Your task to perform on an android device: Go to notification settings Image 0: 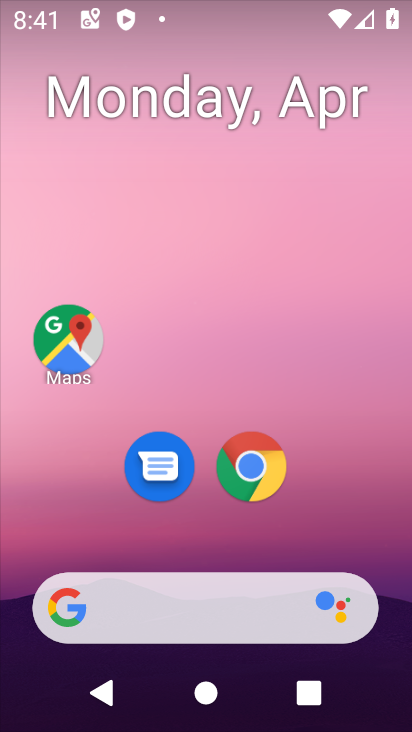
Step 0: drag from (214, 529) to (223, 170)
Your task to perform on an android device: Go to notification settings Image 1: 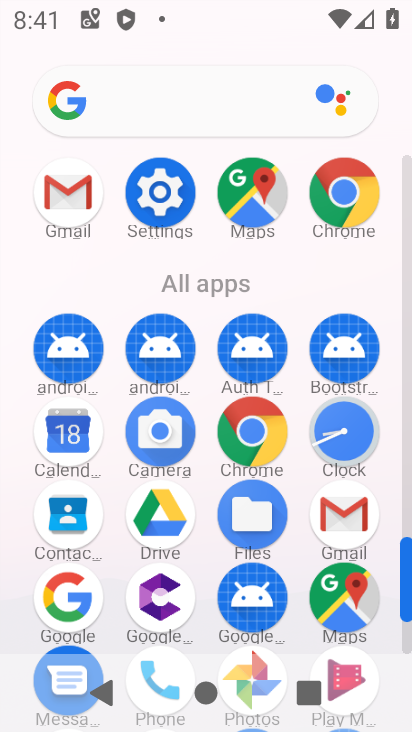
Step 1: click (160, 190)
Your task to perform on an android device: Go to notification settings Image 2: 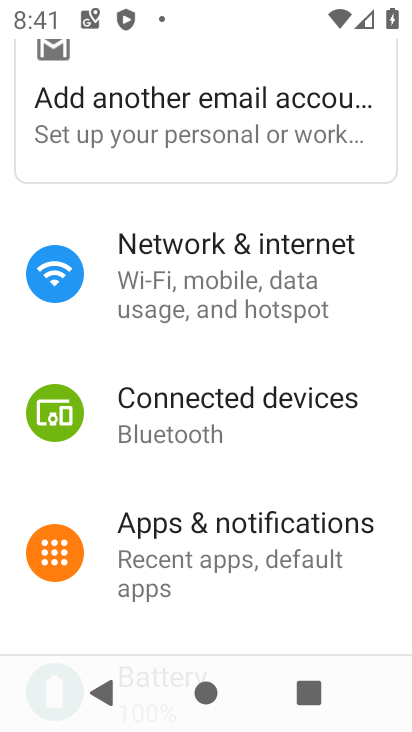
Step 2: drag from (224, 456) to (252, 362)
Your task to perform on an android device: Go to notification settings Image 3: 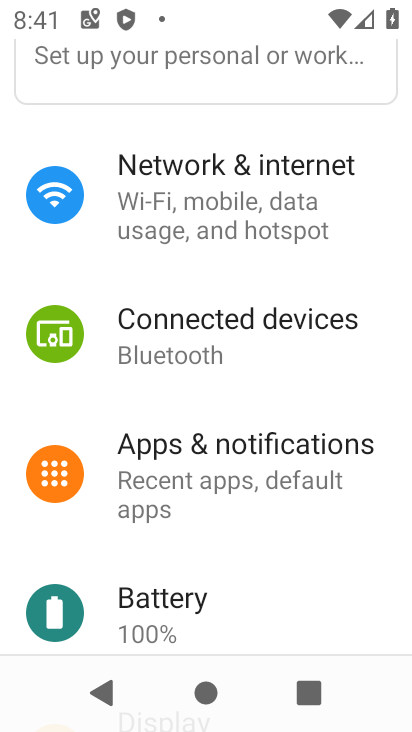
Step 3: click (251, 446)
Your task to perform on an android device: Go to notification settings Image 4: 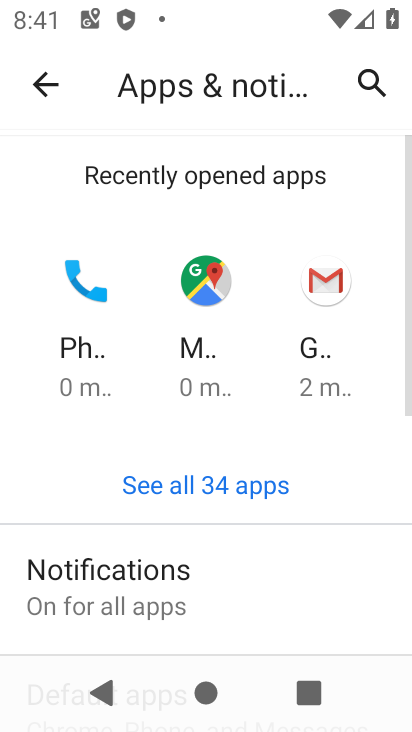
Step 4: drag from (197, 551) to (203, 465)
Your task to perform on an android device: Go to notification settings Image 5: 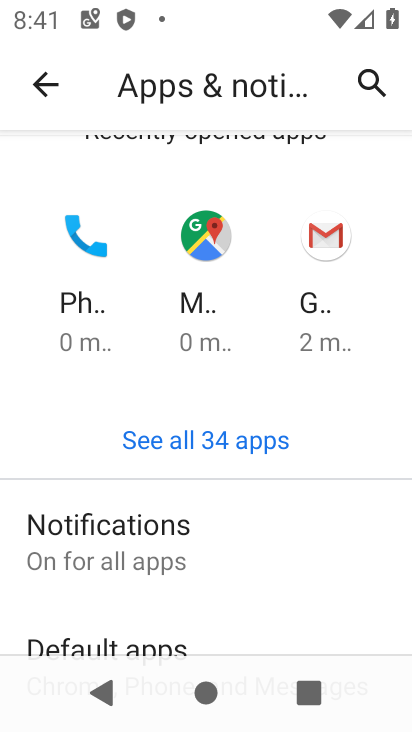
Step 5: click (170, 523)
Your task to perform on an android device: Go to notification settings Image 6: 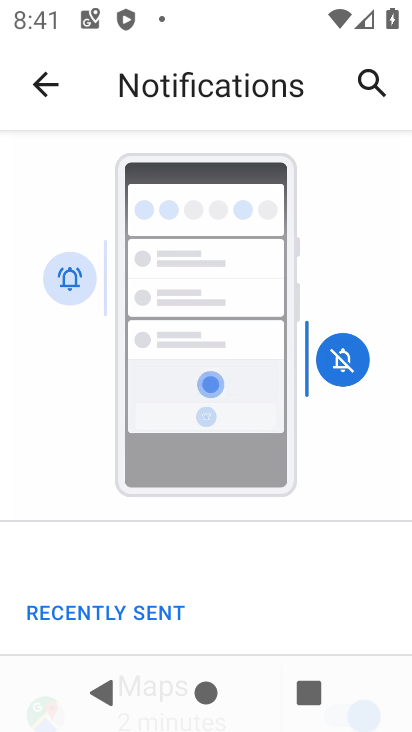
Step 6: task complete